Your task to perform on an android device: turn off translation in the chrome app Image 0: 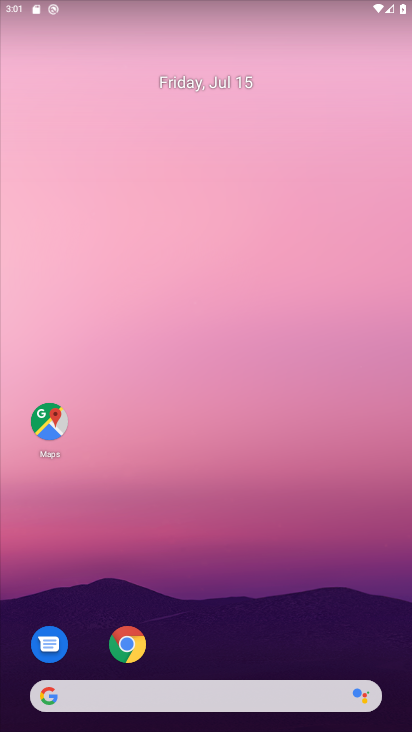
Step 0: click (133, 653)
Your task to perform on an android device: turn off translation in the chrome app Image 1: 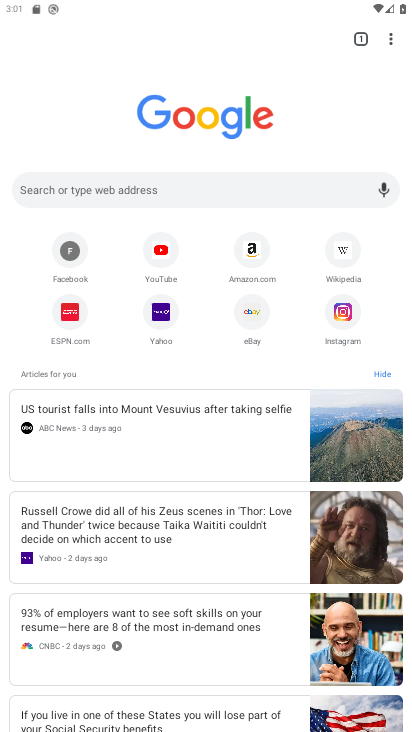
Step 1: click (397, 43)
Your task to perform on an android device: turn off translation in the chrome app Image 2: 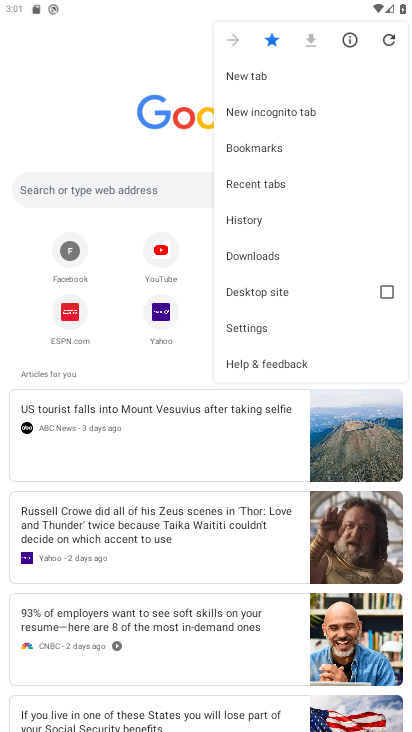
Step 2: click (251, 322)
Your task to perform on an android device: turn off translation in the chrome app Image 3: 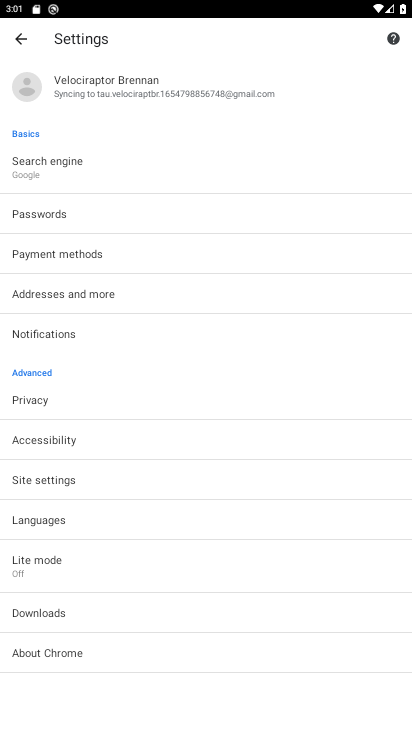
Step 3: click (65, 514)
Your task to perform on an android device: turn off translation in the chrome app Image 4: 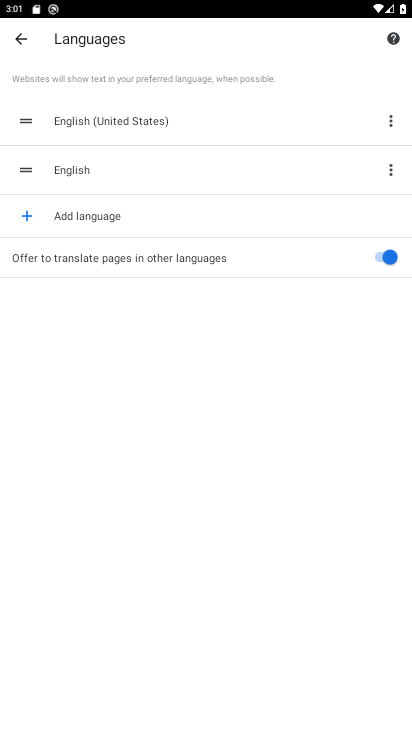
Step 4: click (380, 258)
Your task to perform on an android device: turn off translation in the chrome app Image 5: 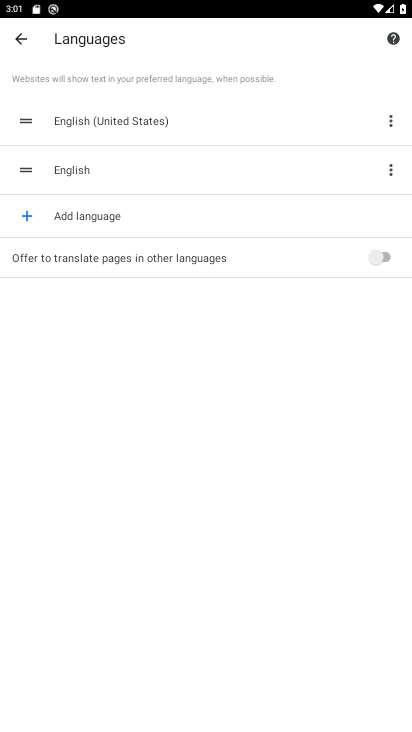
Step 5: task complete